Your task to perform on an android device: clear all cookies in the chrome app Image 0: 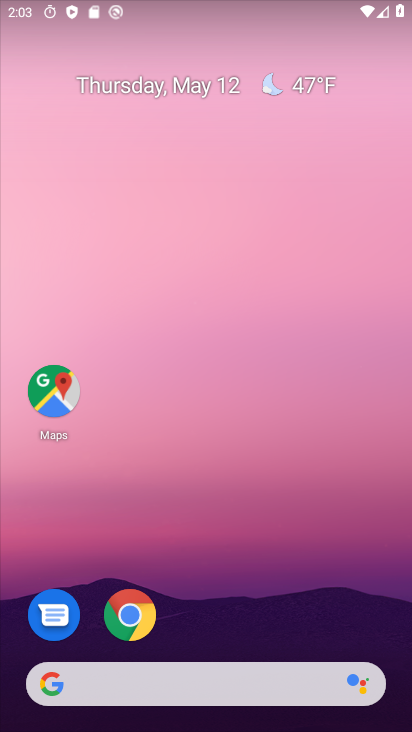
Step 0: click (136, 618)
Your task to perform on an android device: clear all cookies in the chrome app Image 1: 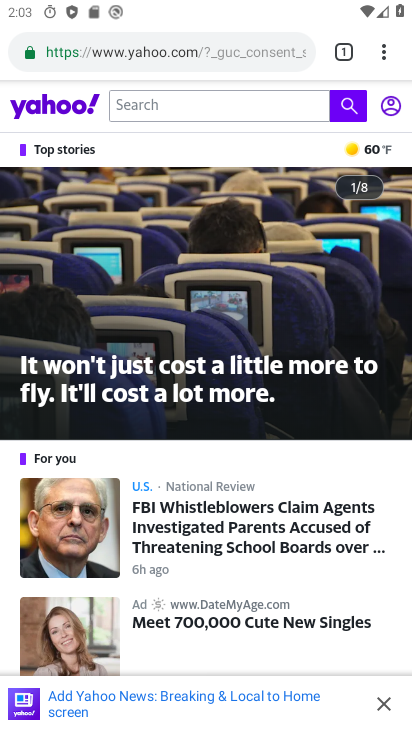
Step 1: click (376, 50)
Your task to perform on an android device: clear all cookies in the chrome app Image 2: 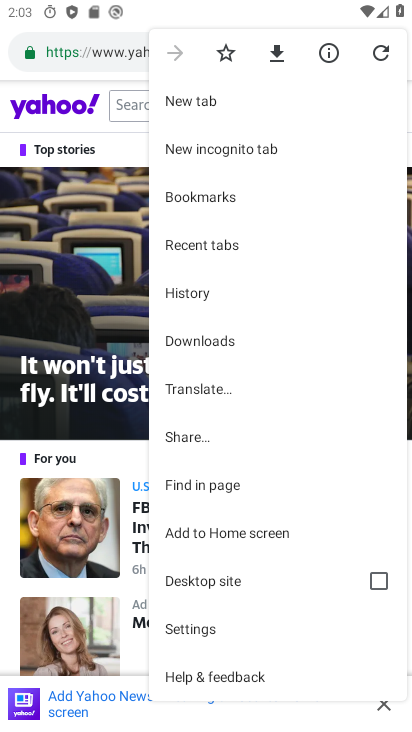
Step 2: click (218, 620)
Your task to perform on an android device: clear all cookies in the chrome app Image 3: 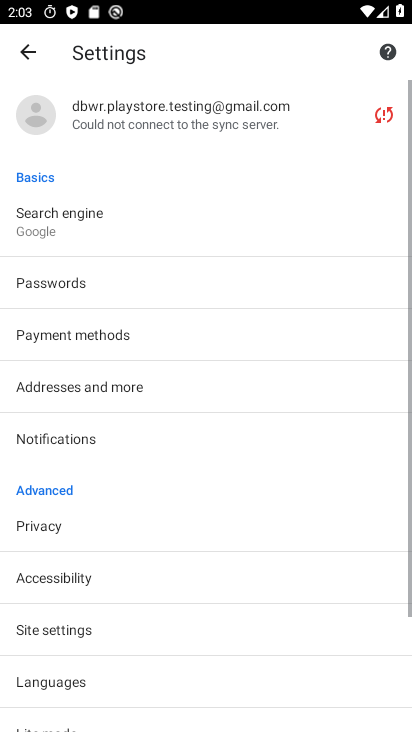
Step 3: drag from (205, 595) to (164, 174)
Your task to perform on an android device: clear all cookies in the chrome app Image 4: 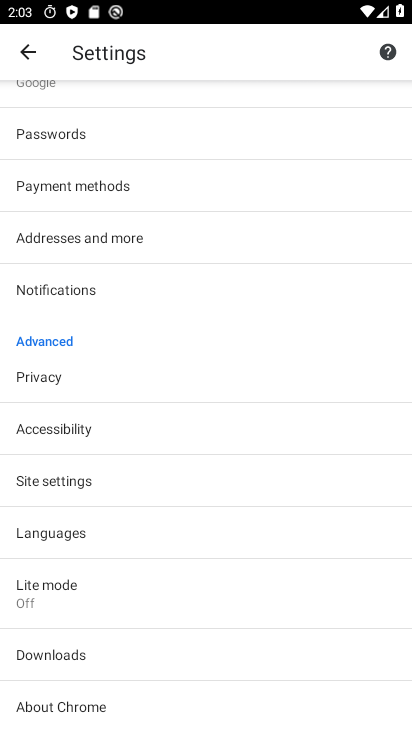
Step 4: click (48, 365)
Your task to perform on an android device: clear all cookies in the chrome app Image 5: 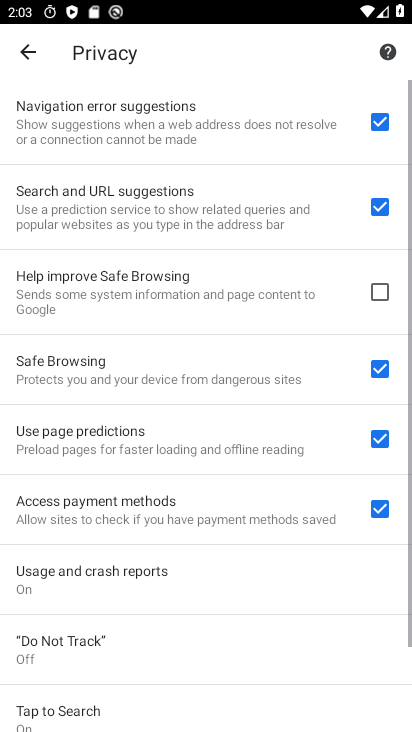
Step 5: drag from (217, 630) to (203, 180)
Your task to perform on an android device: clear all cookies in the chrome app Image 6: 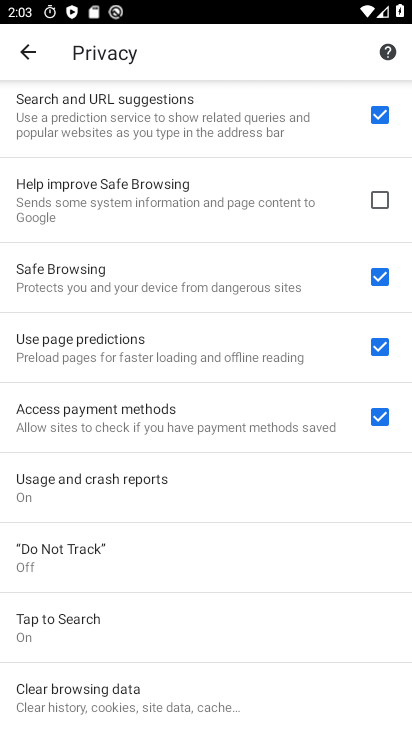
Step 6: click (94, 677)
Your task to perform on an android device: clear all cookies in the chrome app Image 7: 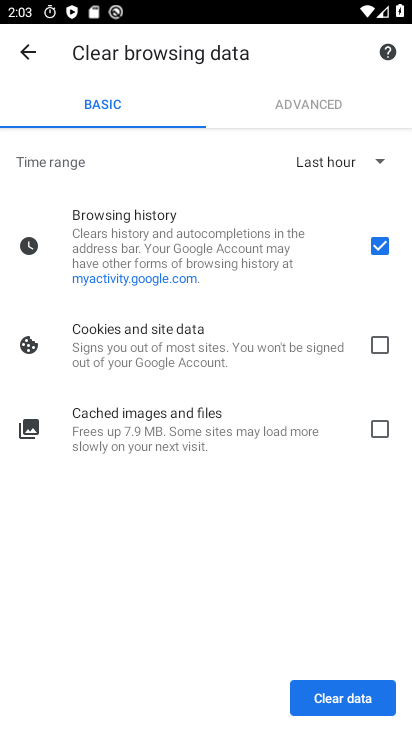
Step 7: click (378, 343)
Your task to perform on an android device: clear all cookies in the chrome app Image 8: 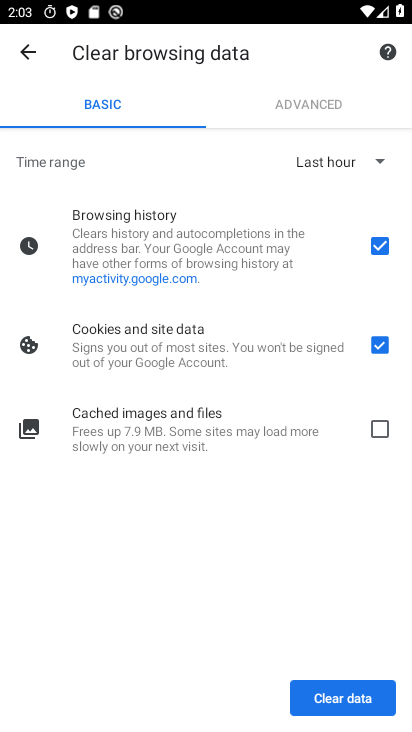
Step 8: click (372, 249)
Your task to perform on an android device: clear all cookies in the chrome app Image 9: 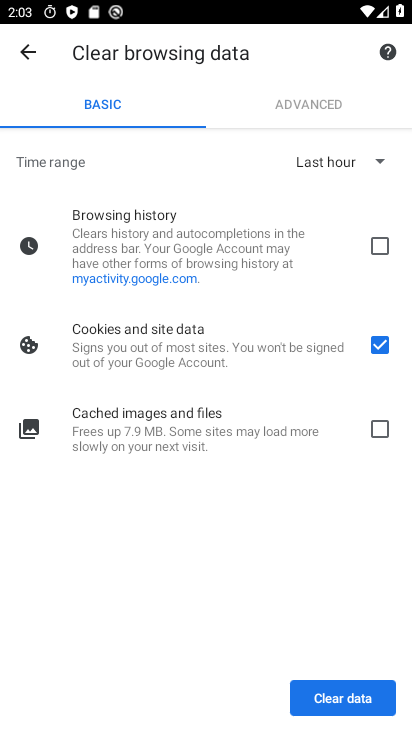
Step 9: click (348, 686)
Your task to perform on an android device: clear all cookies in the chrome app Image 10: 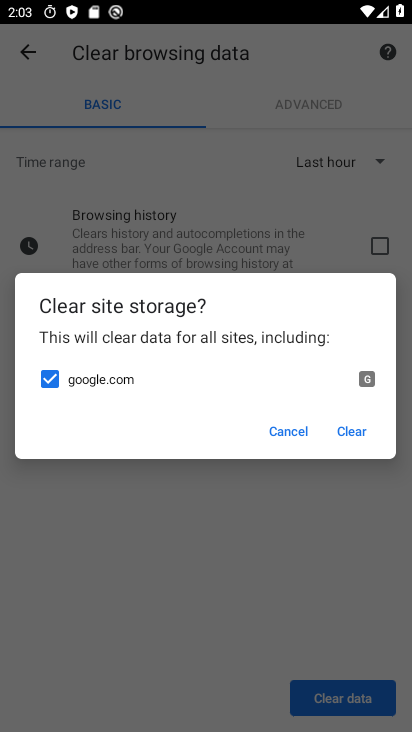
Step 10: click (349, 434)
Your task to perform on an android device: clear all cookies in the chrome app Image 11: 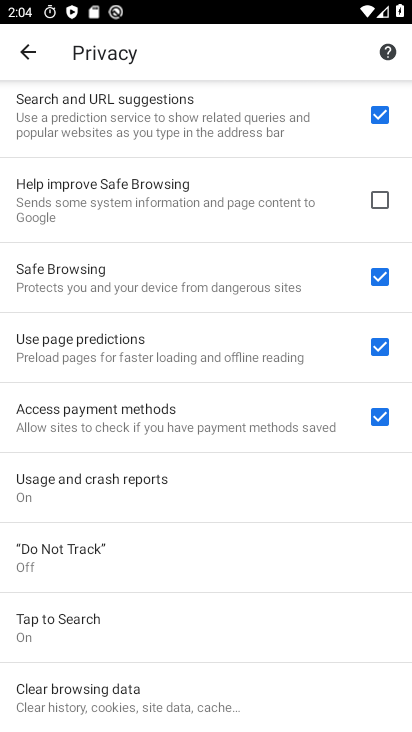
Step 11: task complete